Your task to perform on an android device: turn on bluetooth scan Image 0: 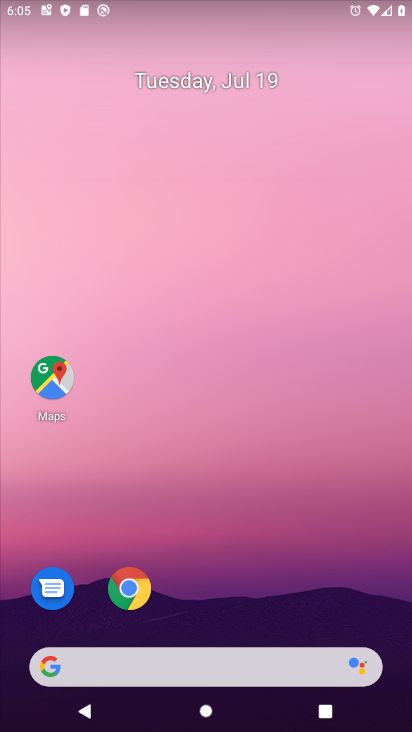
Step 0: drag from (213, 597) to (230, 32)
Your task to perform on an android device: turn on bluetooth scan Image 1: 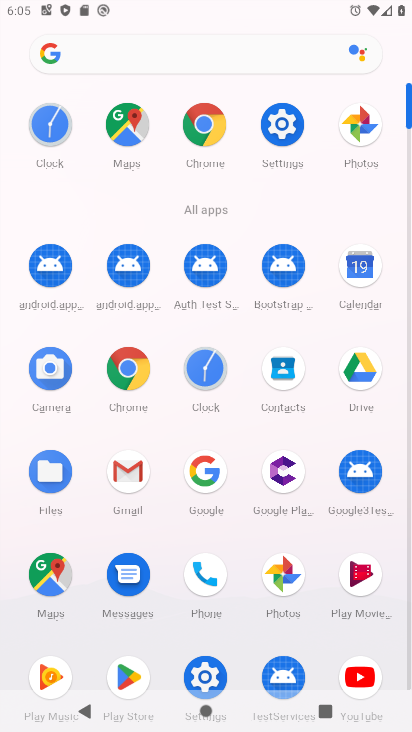
Step 1: click (292, 134)
Your task to perform on an android device: turn on bluetooth scan Image 2: 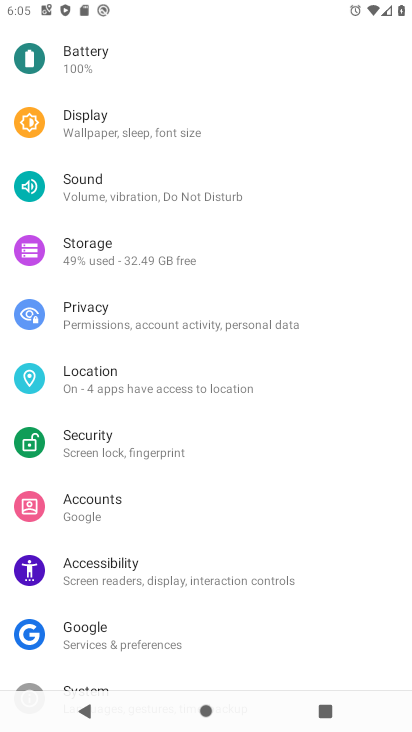
Step 2: click (115, 370)
Your task to perform on an android device: turn on bluetooth scan Image 3: 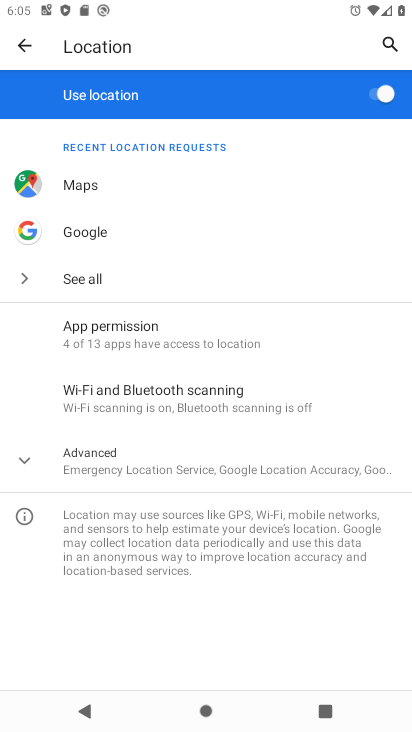
Step 3: click (234, 405)
Your task to perform on an android device: turn on bluetooth scan Image 4: 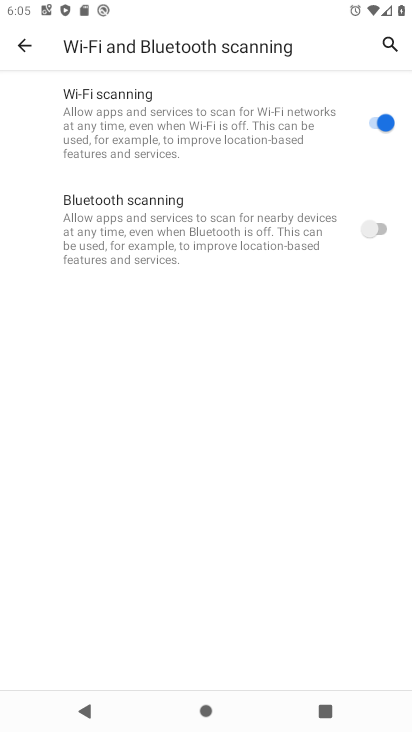
Step 4: click (374, 228)
Your task to perform on an android device: turn on bluetooth scan Image 5: 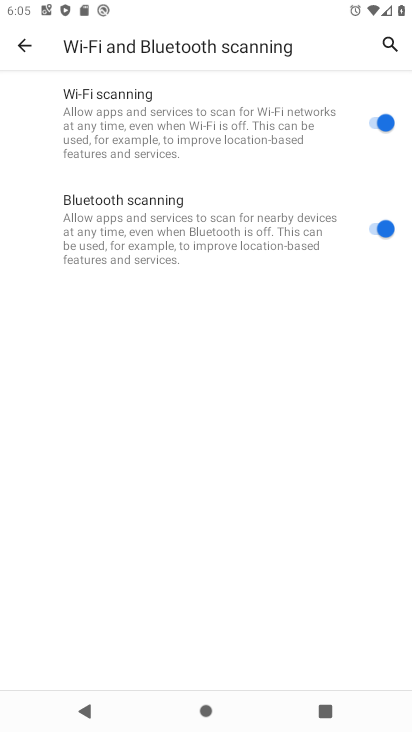
Step 5: task complete